Your task to perform on an android device: delete the emails in spam in the gmail app Image 0: 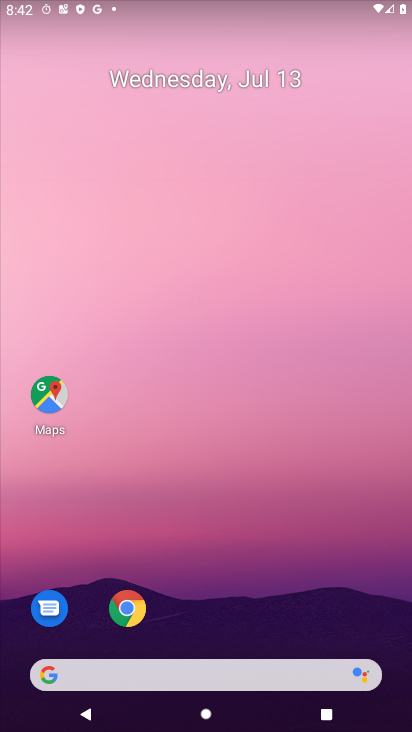
Step 0: drag from (259, 666) to (178, 96)
Your task to perform on an android device: delete the emails in spam in the gmail app Image 1: 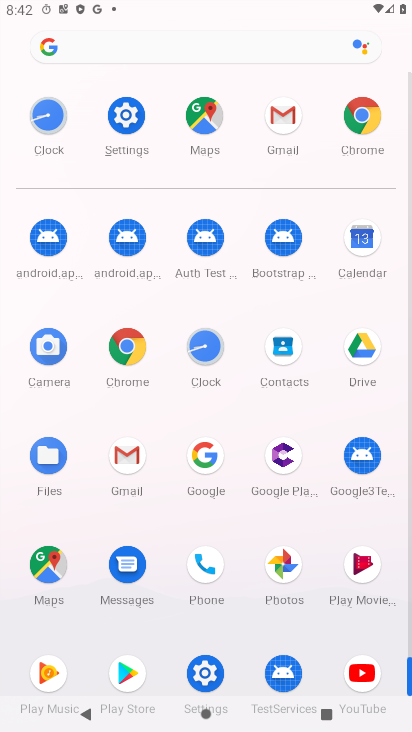
Step 1: click (282, 111)
Your task to perform on an android device: delete the emails in spam in the gmail app Image 2: 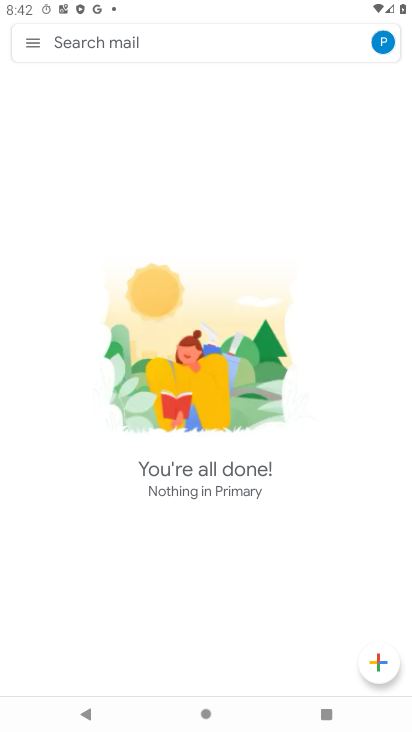
Step 2: click (27, 51)
Your task to perform on an android device: delete the emails in spam in the gmail app Image 3: 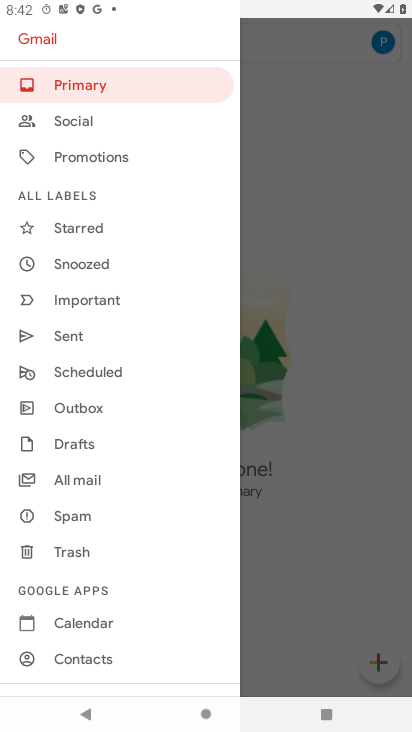
Step 3: click (62, 480)
Your task to perform on an android device: delete the emails in spam in the gmail app Image 4: 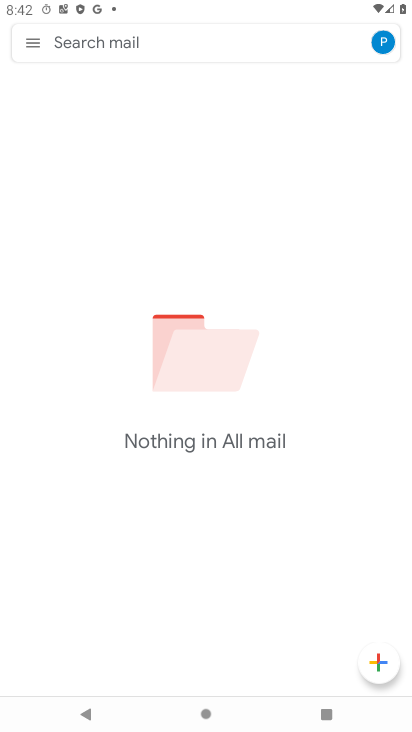
Step 4: task complete